Your task to perform on an android device: Open internet settings Image 0: 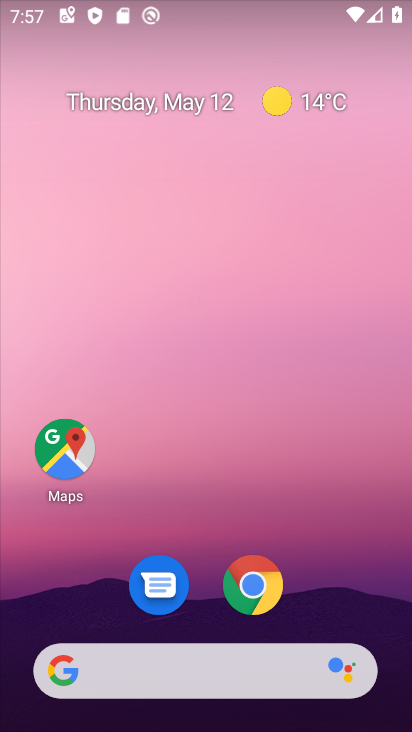
Step 0: drag from (335, 511) to (223, 49)
Your task to perform on an android device: Open internet settings Image 1: 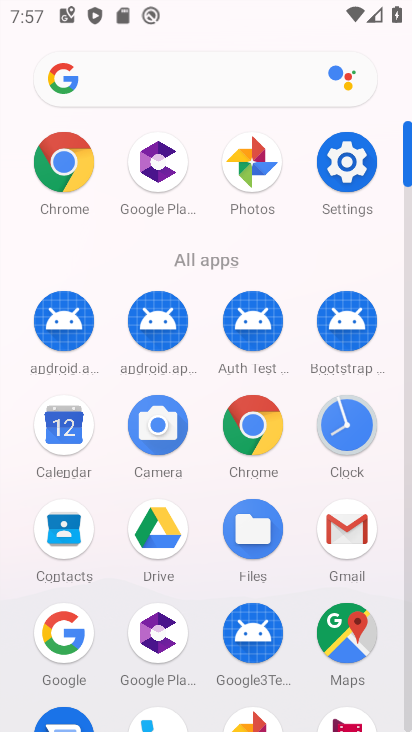
Step 1: click (346, 165)
Your task to perform on an android device: Open internet settings Image 2: 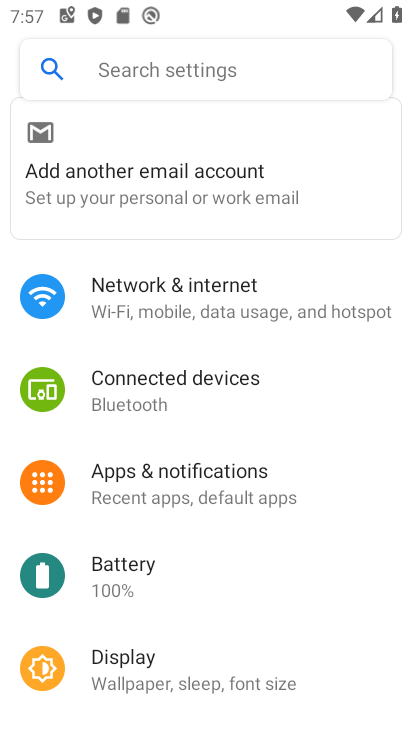
Step 2: click (249, 280)
Your task to perform on an android device: Open internet settings Image 3: 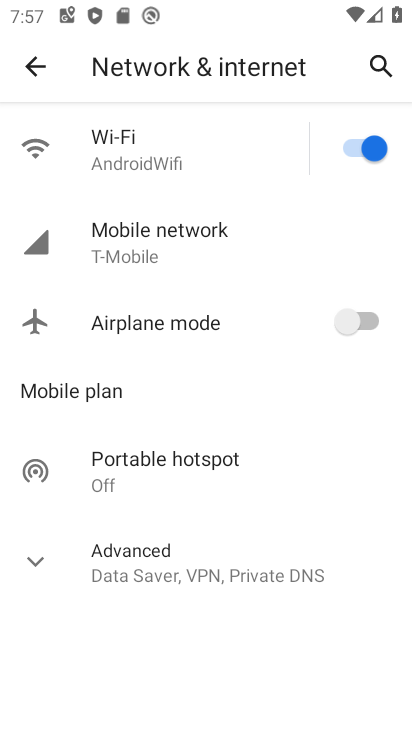
Step 3: task complete